Your task to perform on an android device: set an alarm Image 0: 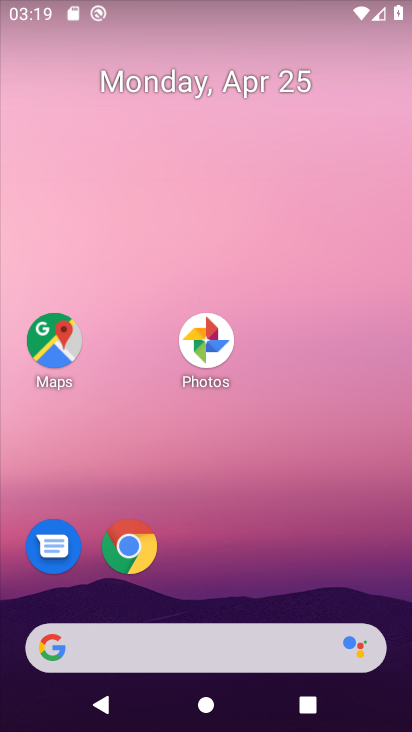
Step 0: drag from (340, 487) to (340, 266)
Your task to perform on an android device: set an alarm Image 1: 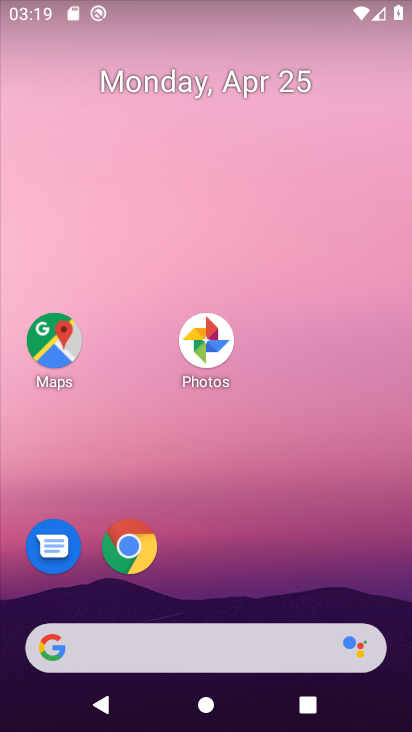
Step 1: drag from (268, 560) to (353, 223)
Your task to perform on an android device: set an alarm Image 2: 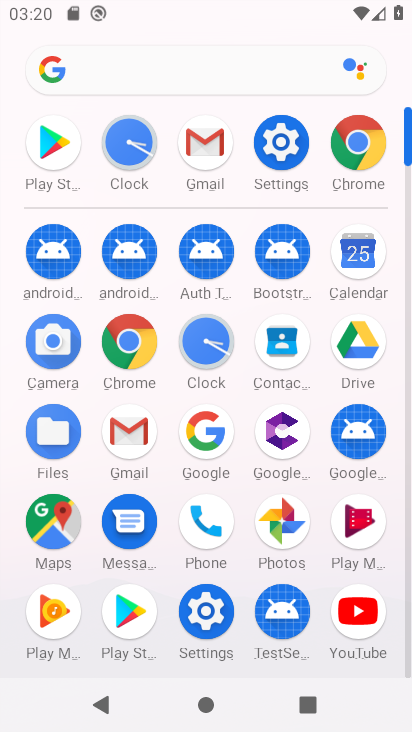
Step 2: click (204, 349)
Your task to perform on an android device: set an alarm Image 3: 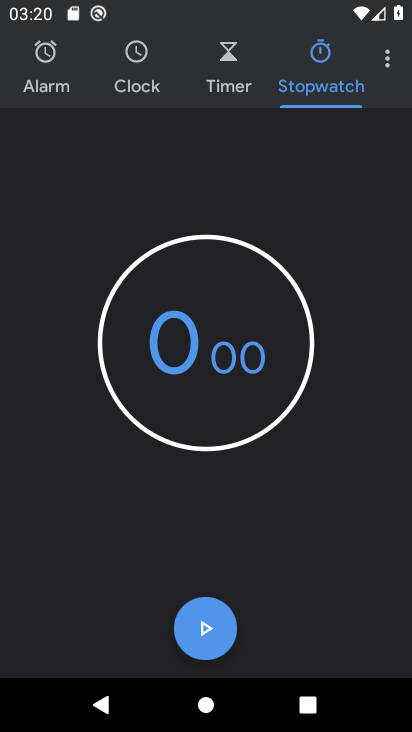
Step 3: click (47, 78)
Your task to perform on an android device: set an alarm Image 4: 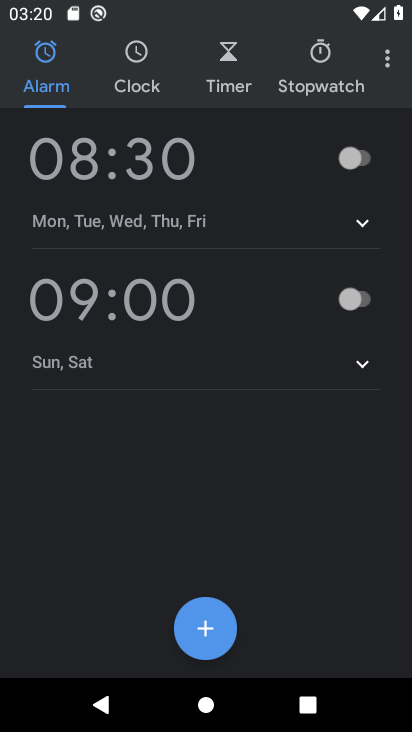
Step 4: click (361, 162)
Your task to perform on an android device: set an alarm Image 5: 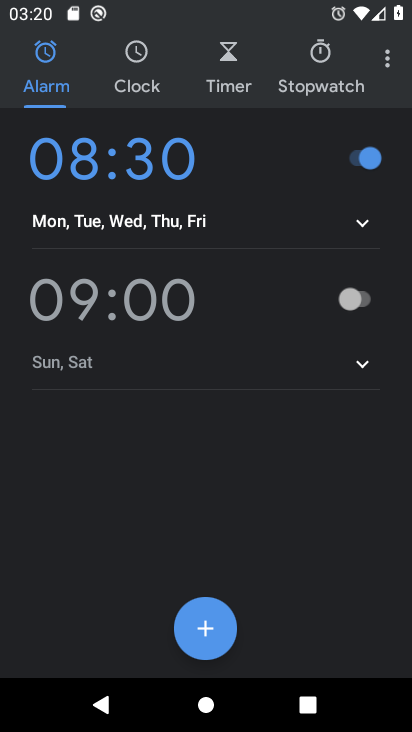
Step 5: task complete